Your task to perform on an android device: Toggle the flashlight Image 0: 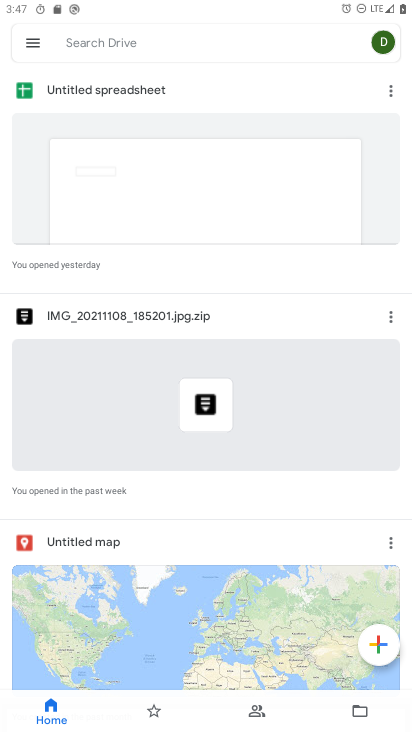
Step 0: press home button
Your task to perform on an android device: Toggle the flashlight Image 1: 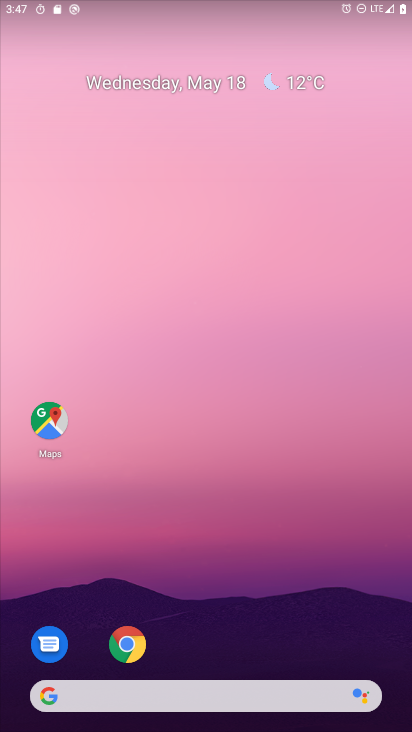
Step 1: drag from (401, 643) to (368, 135)
Your task to perform on an android device: Toggle the flashlight Image 2: 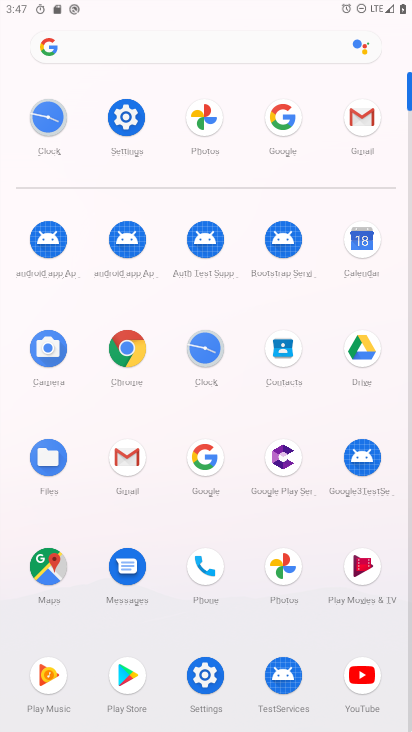
Step 2: click (136, 114)
Your task to perform on an android device: Toggle the flashlight Image 3: 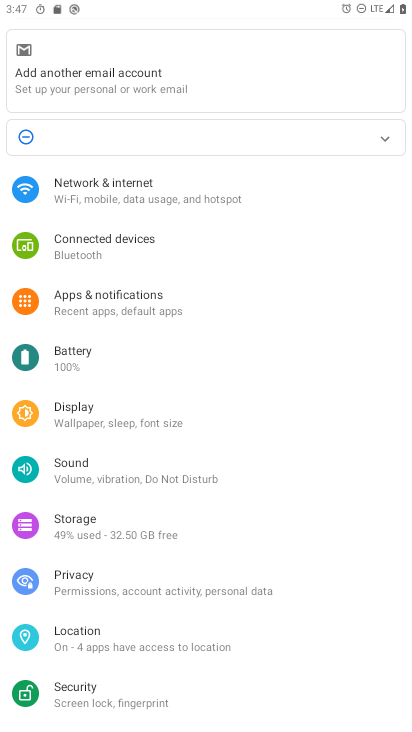
Step 3: click (81, 223)
Your task to perform on an android device: Toggle the flashlight Image 4: 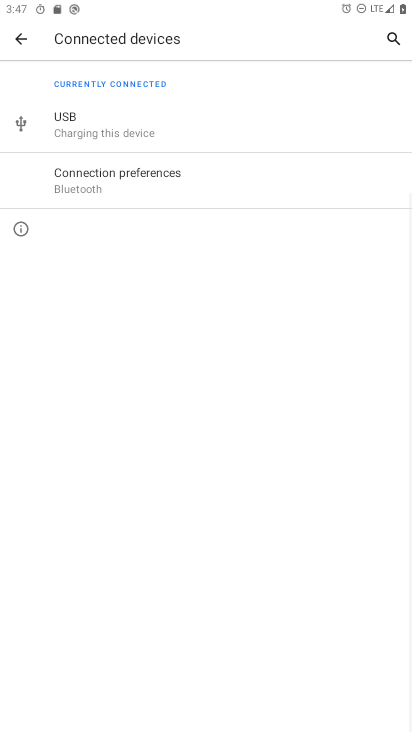
Step 4: task complete